Your task to perform on an android device: install app "LinkedIn" Image 0: 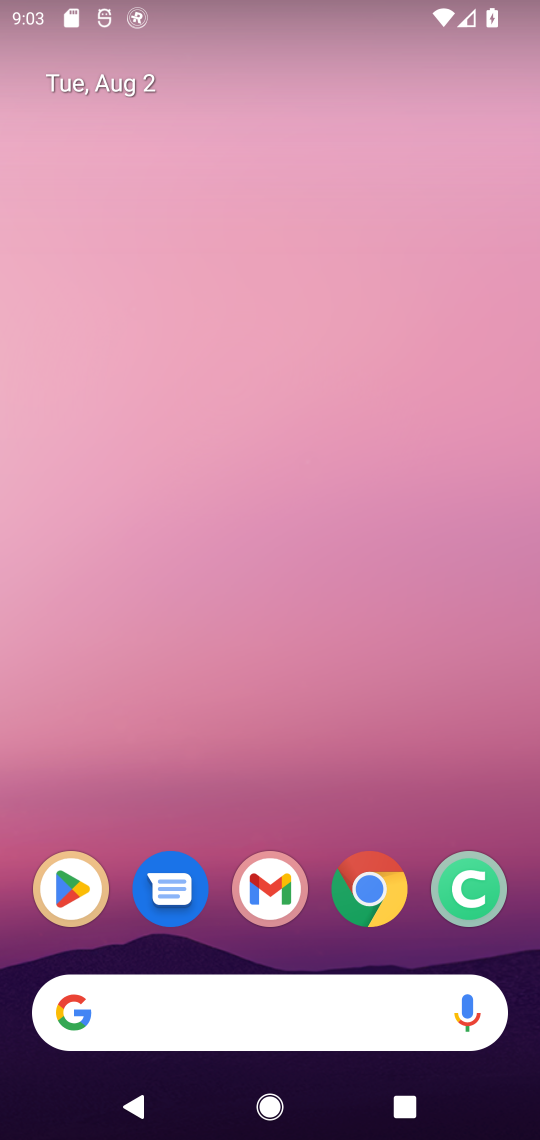
Step 0: press home button
Your task to perform on an android device: install app "LinkedIn" Image 1: 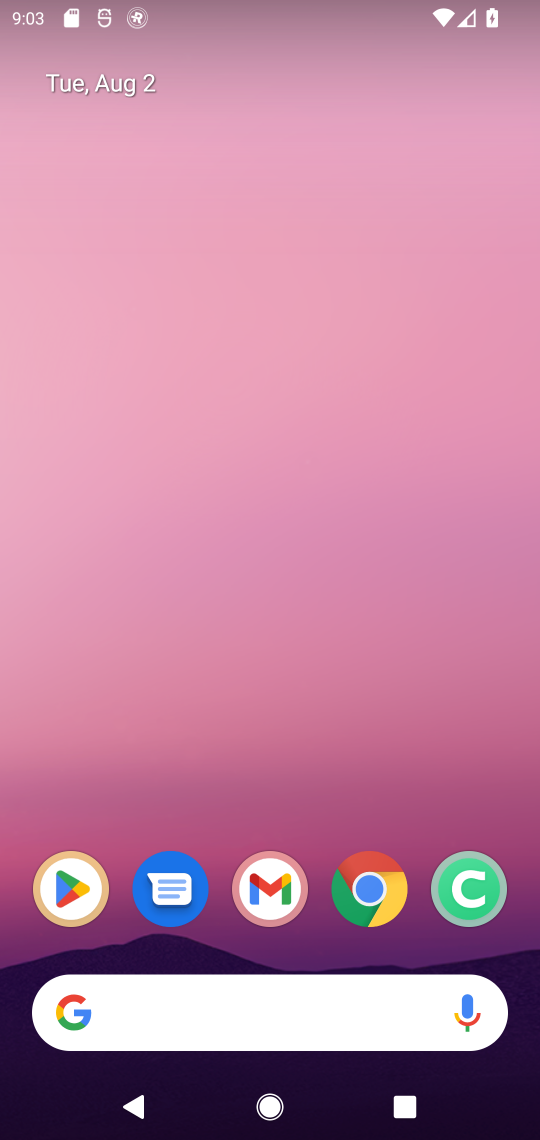
Step 1: click (79, 886)
Your task to perform on an android device: install app "LinkedIn" Image 2: 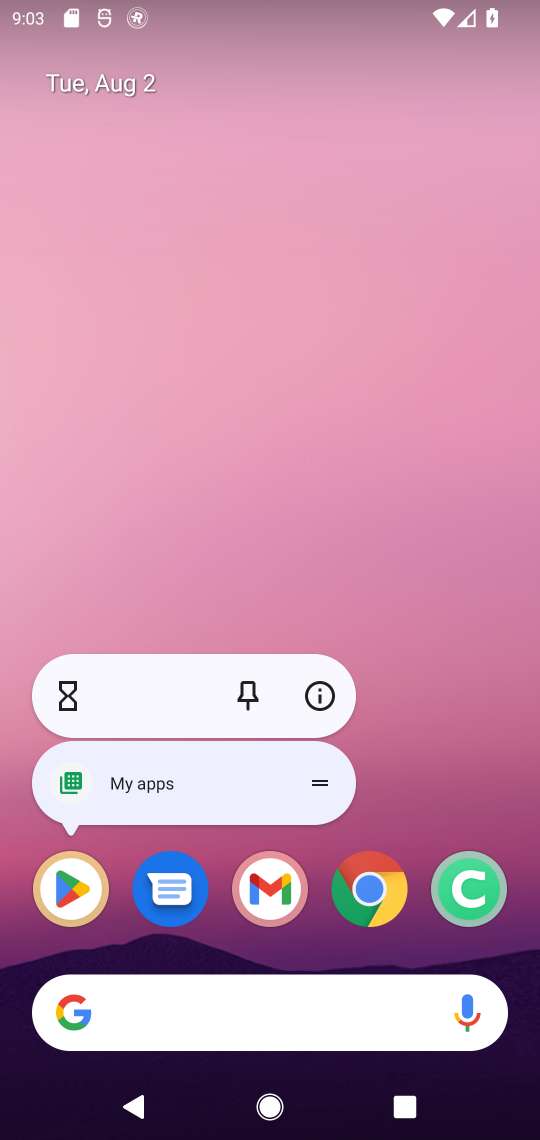
Step 2: click (73, 894)
Your task to perform on an android device: install app "LinkedIn" Image 3: 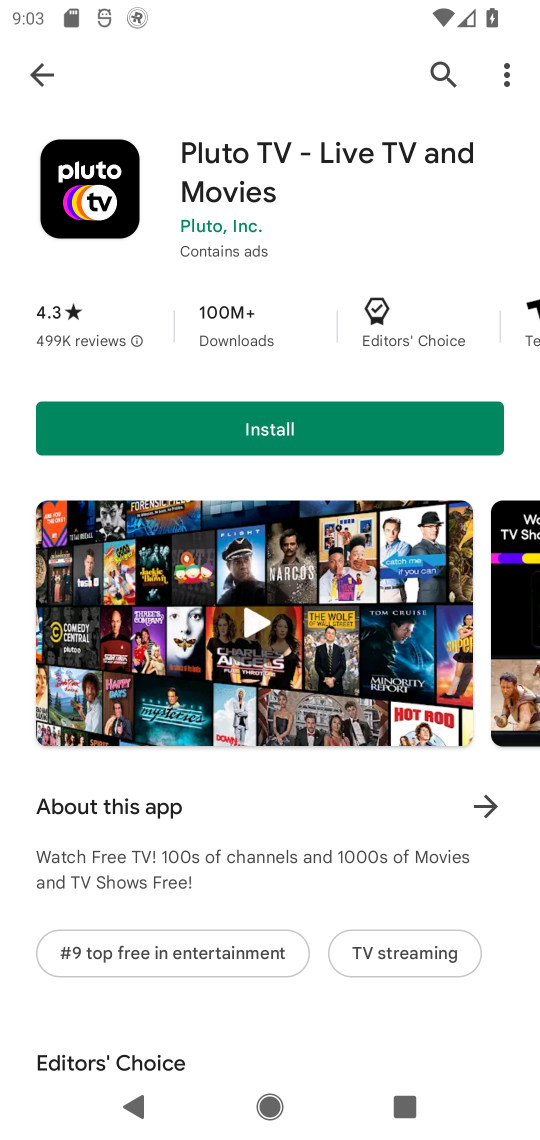
Step 3: click (434, 64)
Your task to perform on an android device: install app "LinkedIn" Image 4: 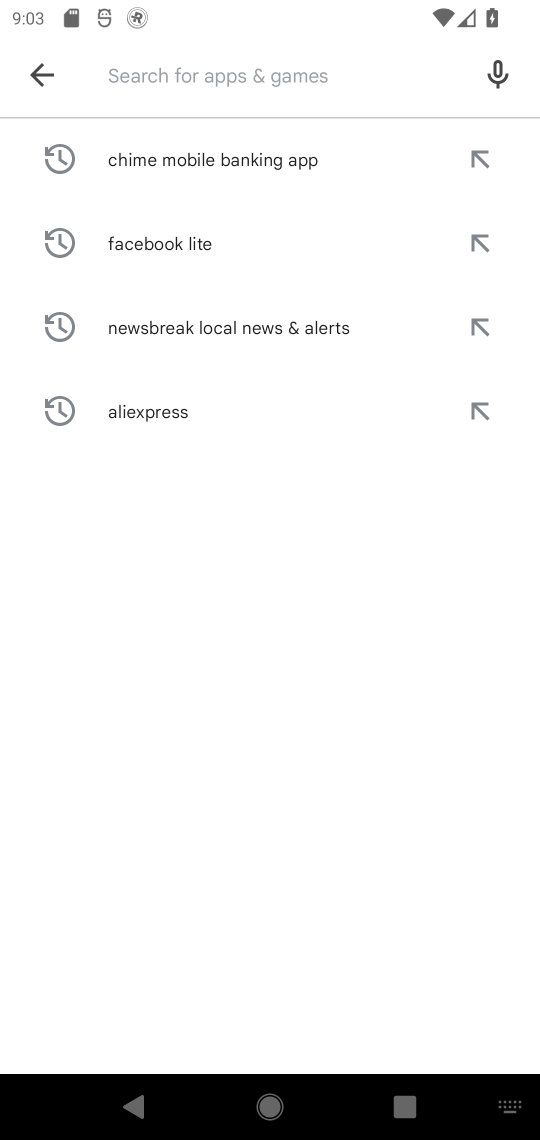
Step 4: type "LinkedIn"
Your task to perform on an android device: install app "LinkedIn" Image 5: 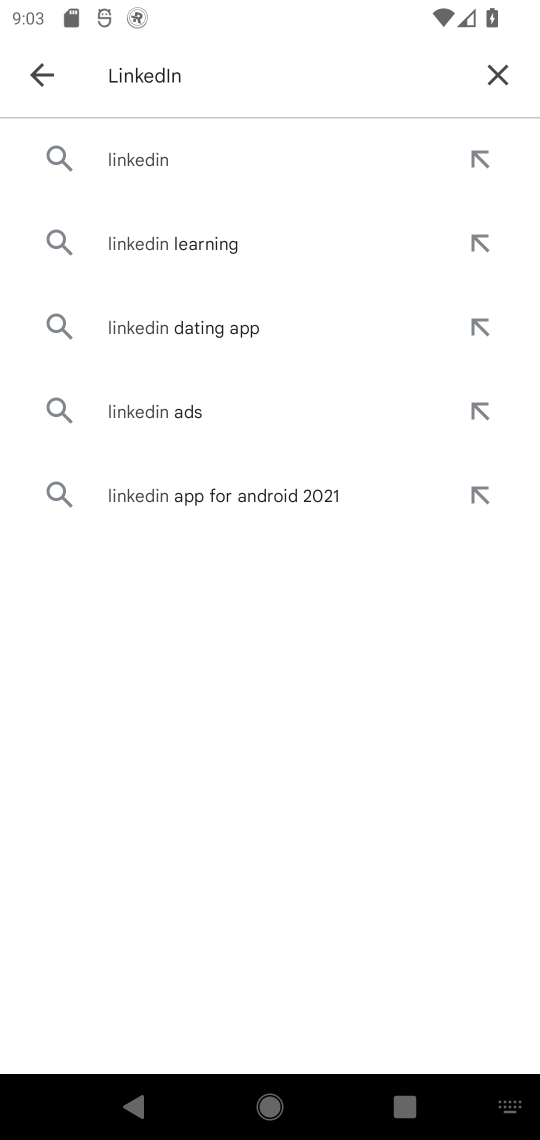
Step 5: click (191, 158)
Your task to perform on an android device: install app "LinkedIn" Image 6: 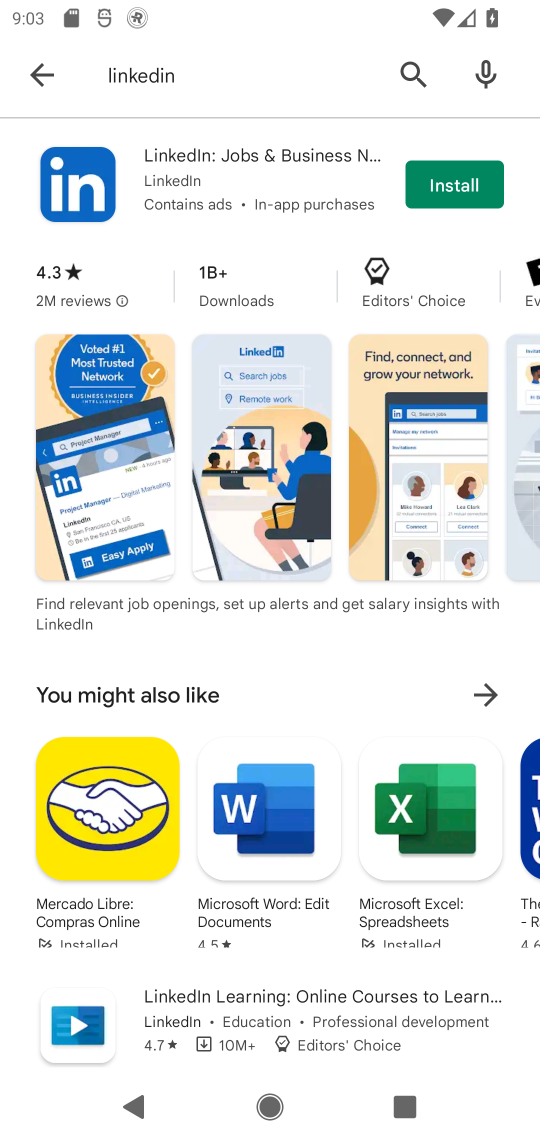
Step 6: click (466, 187)
Your task to perform on an android device: install app "LinkedIn" Image 7: 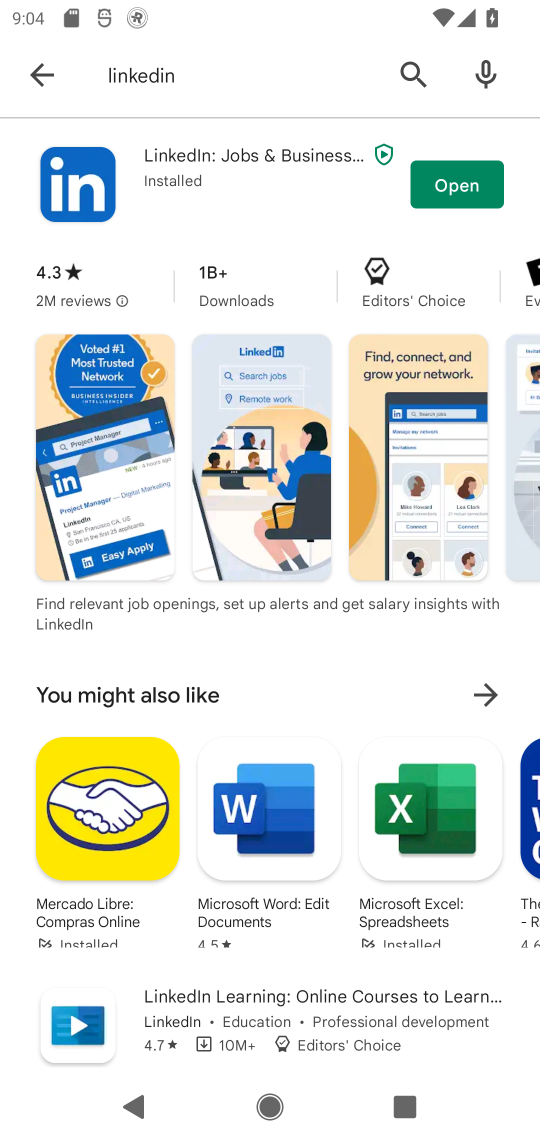
Step 7: task complete